Your task to perform on an android device: Open calendar and show me the second week of next month Image 0: 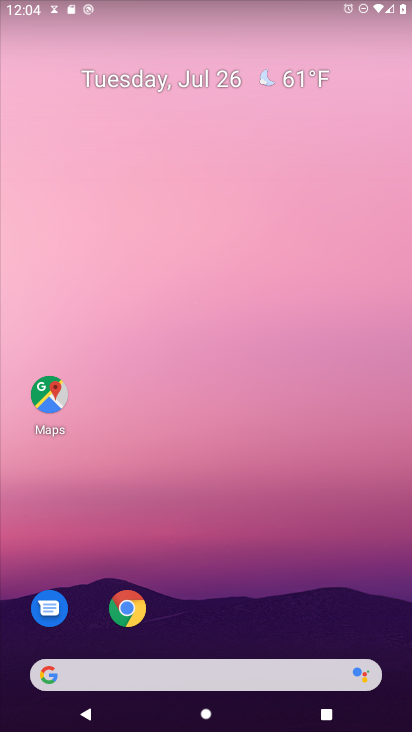
Step 0: drag from (163, 680) to (243, 72)
Your task to perform on an android device: Open calendar and show me the second week of next month Image 1: 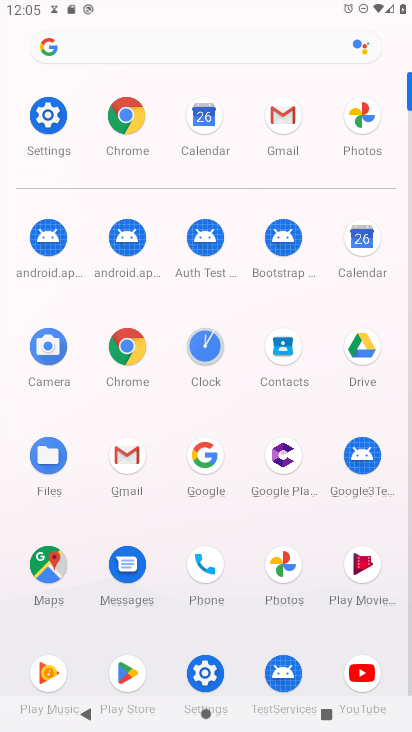
Step 1: click (363, 236)
Your task to perform on an android device: Open calendar and show me the second week of next month Image 2: 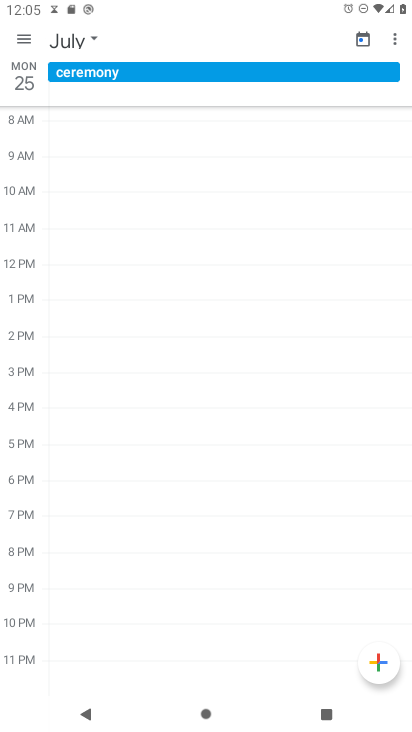
Step 2: click (363, 40)
Your task to perform on an android device: Open calendar and show me the second week of next month Image 3: 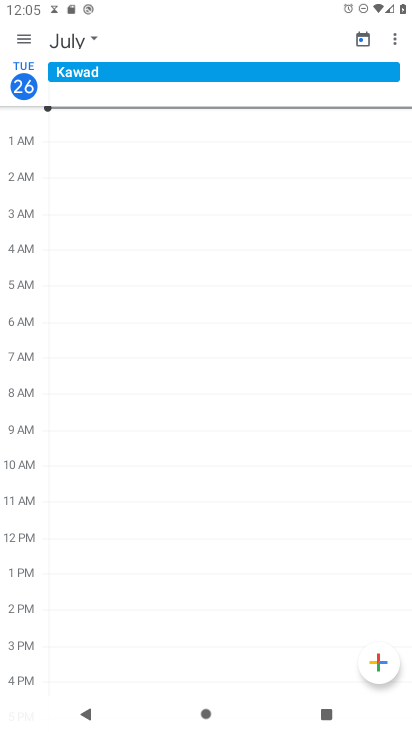
Step 3: click (95, 36)
Your task to perform on an android device: Open calendar and show me the second week of next month Image 4: 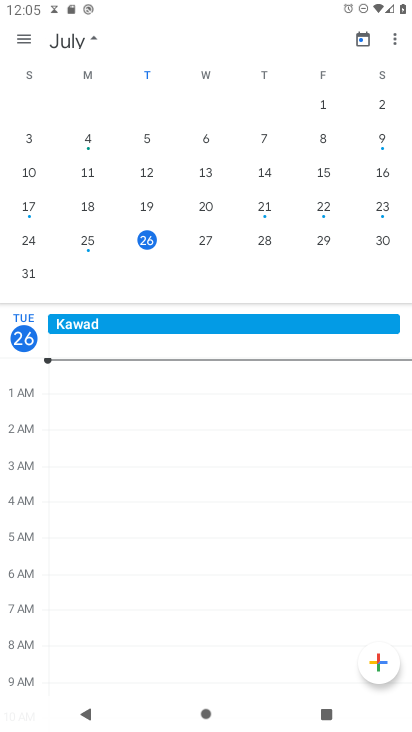
Step 4: drag from (365, 218) to (3, 238)
Your task to perform on an android device: Open calendar and show me the second week of next month Image 5: 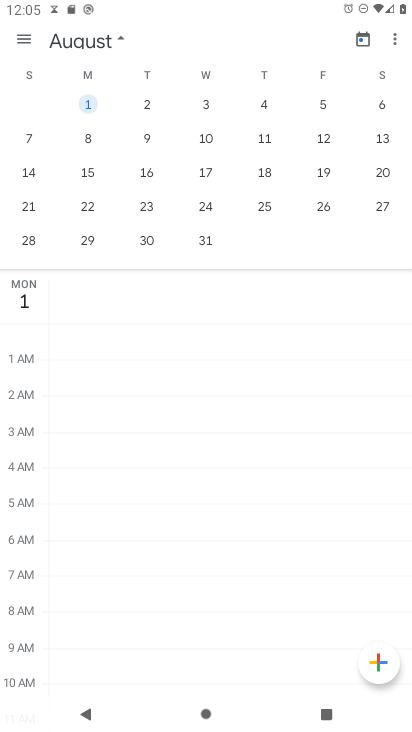
Step 5: click (88, 136)
Your task to perform on an android device: Open calendar and show me the second week of next month Image 6: 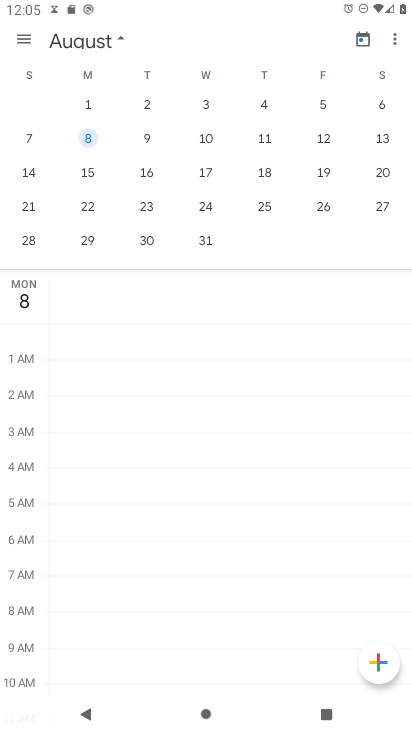
Step 6: click (24, 34)
Your task to perform on an android device: Open calendar and show me the second week of next month Image 7: 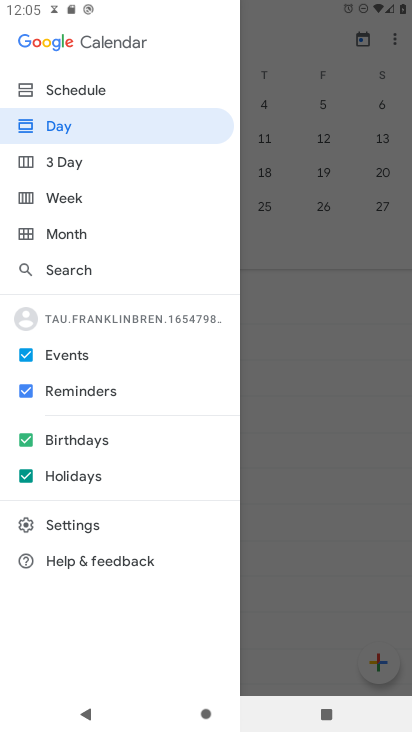
Step 7: click (79, 200)
Your task to perform on an android device: Open calendar and show me the second week of next month Image 8: 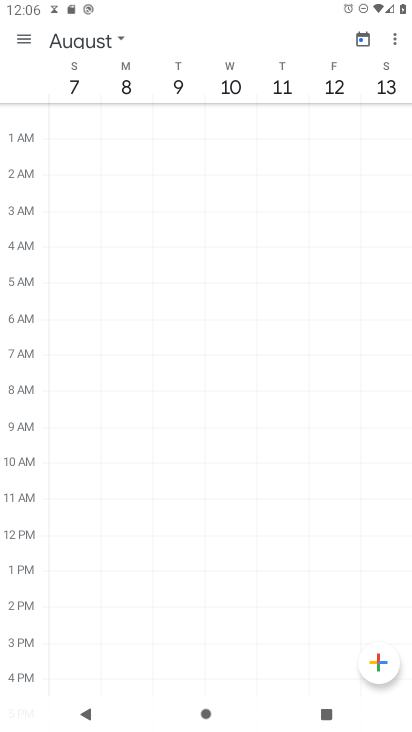
Step 8: task complete